Your task to perform on an android device: turn on translation in the chrome app Image 0: 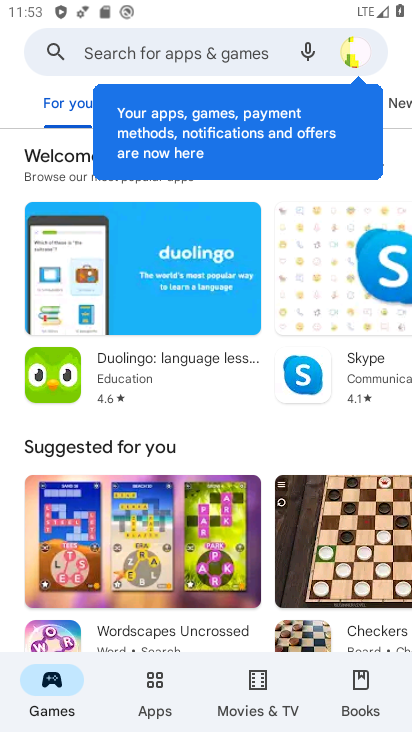
Step 0: press home button
Your task to perform on an android device: turn on translation in the chrome app Image 1: 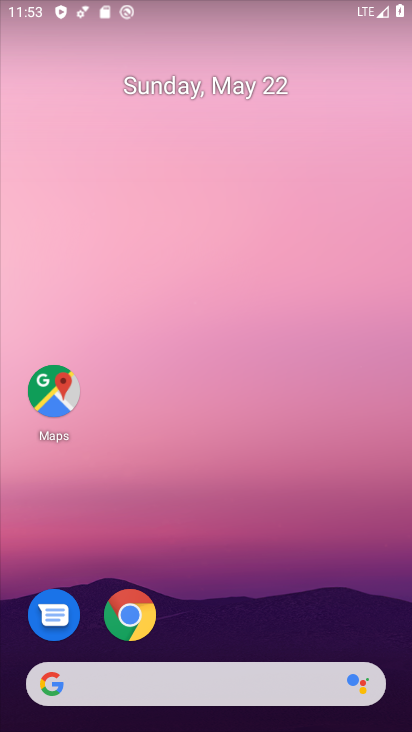
Step 1: click (126, 606)
Your task to perform on an android device: turn on translation in the chrome app Image 2: 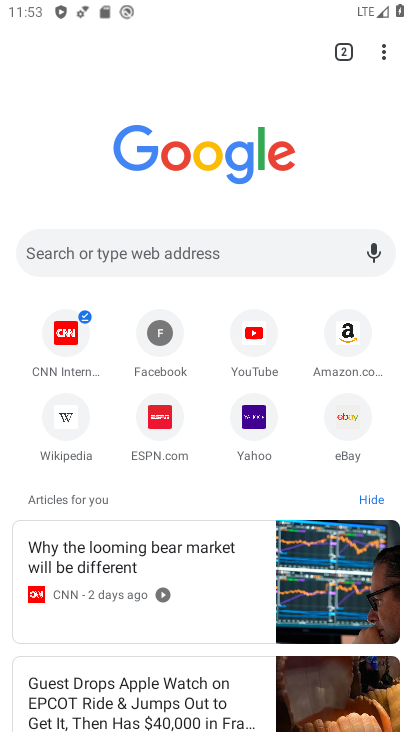
Step 2: drag from (379, 47) to (206, 435)
Your task to perform on an android device: turn on translation in the chrome app Image 3: 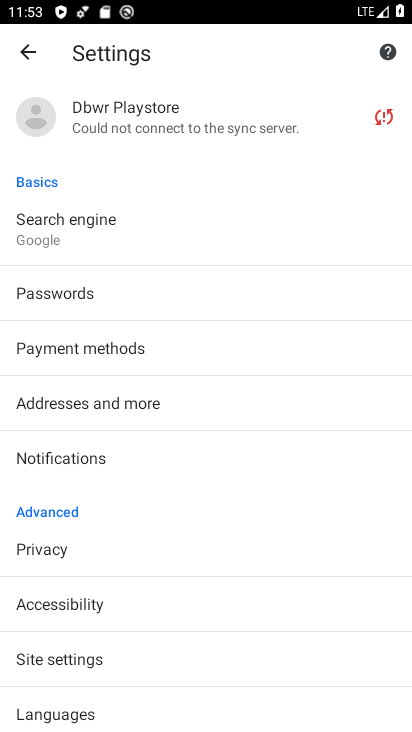
Step 3: click (84, 712)
Your task to perform on an android device: turn on translation in the chrome app Image 4: 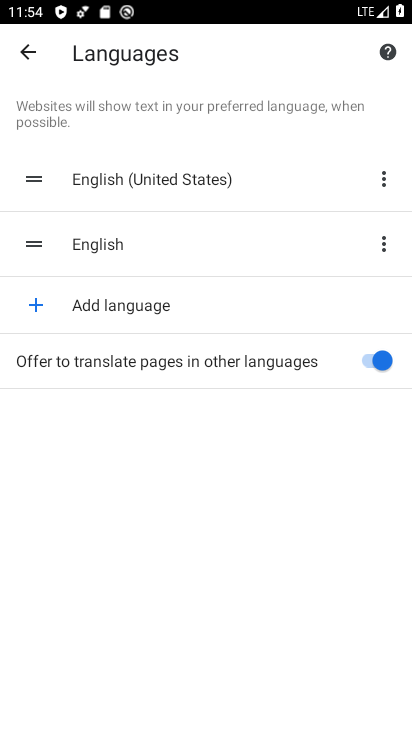
Step 4: task complete